Your task to perform on an android device: When is my next meeting? Image 0: 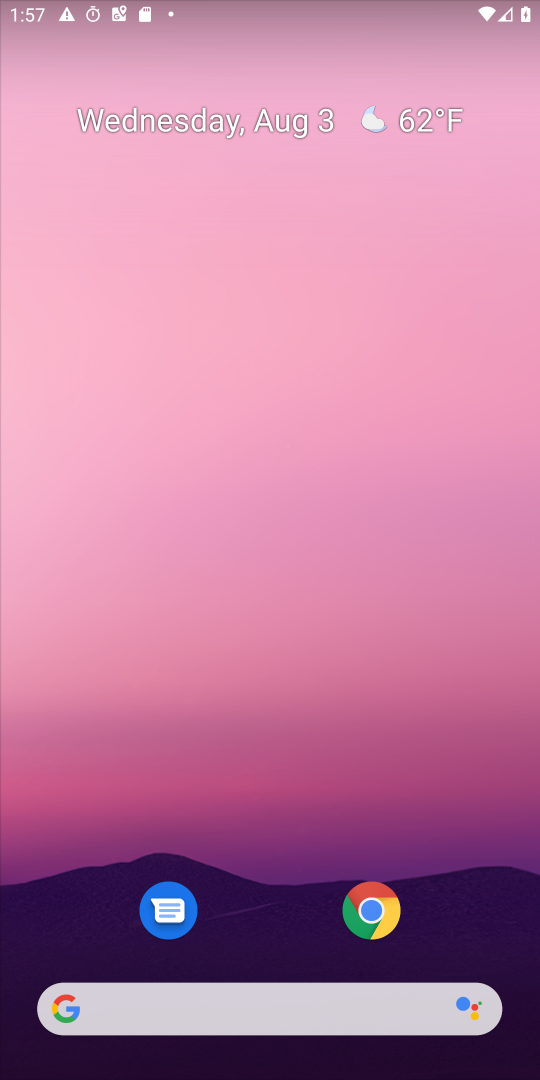
Step 0: drag from (365, 736) to (395, 0)
Your task to perform on an android device: When is my next meeting? Image 1: 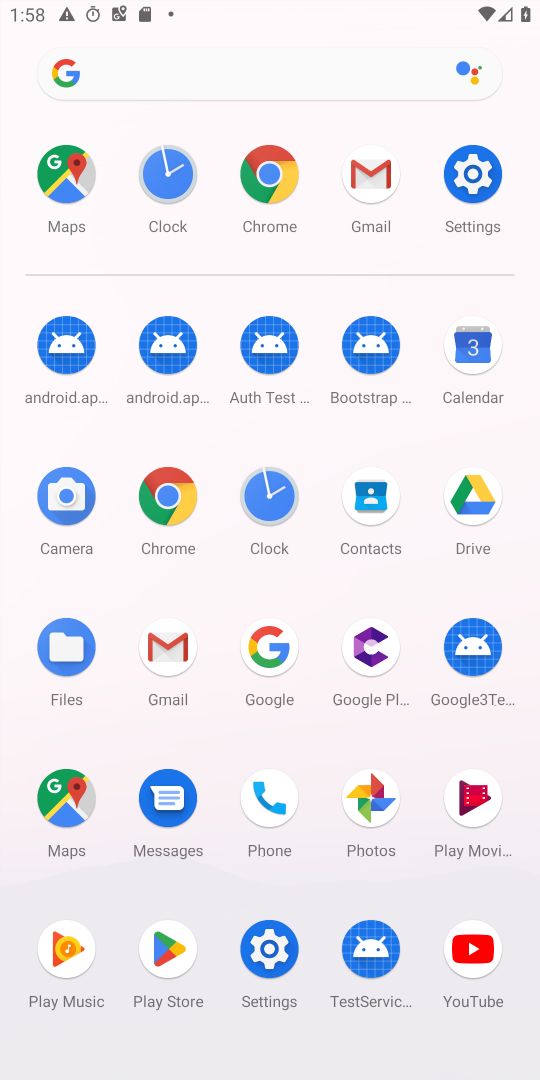
Step 1: click (485, 175)
Your task to perform on an android device: When is my next meeting? Image 2: 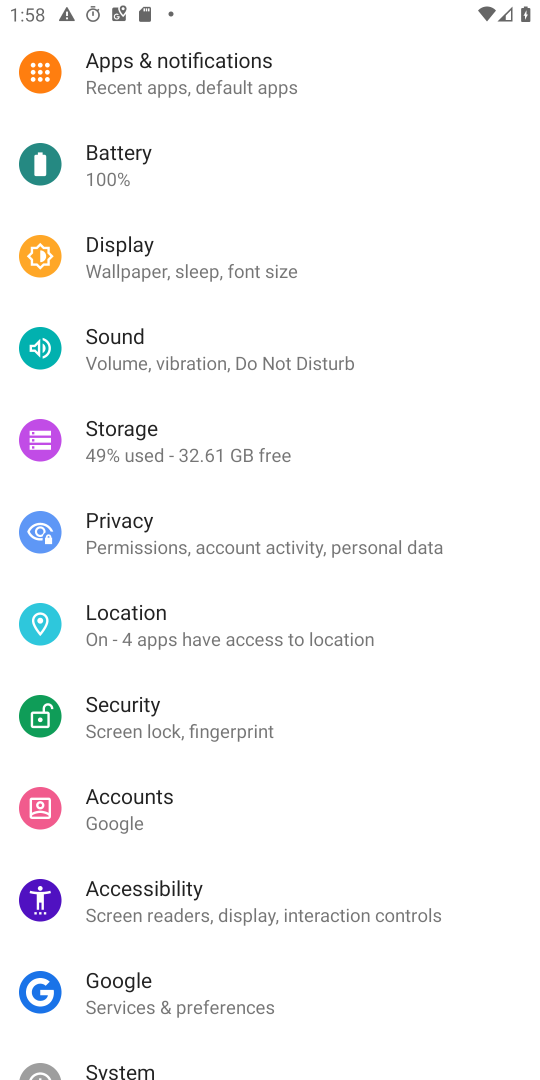
Step 2: press home button
Your task to perform on an android device: When is my next meeting? Image 3: 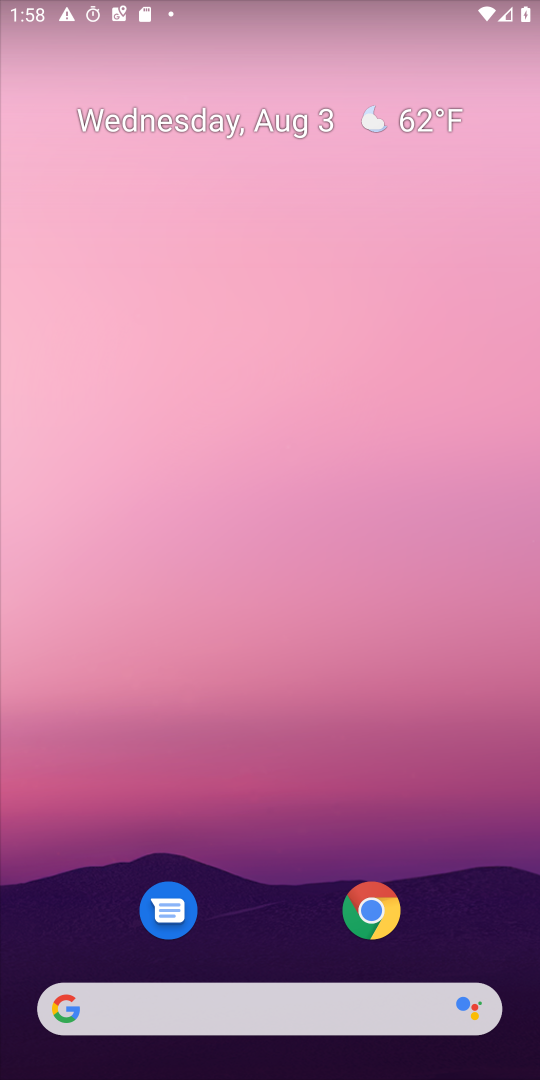
Step 3: drag from (321, 993) to (306, 11)
Your task to perform on an android device: When is my next meeting? Image 4: 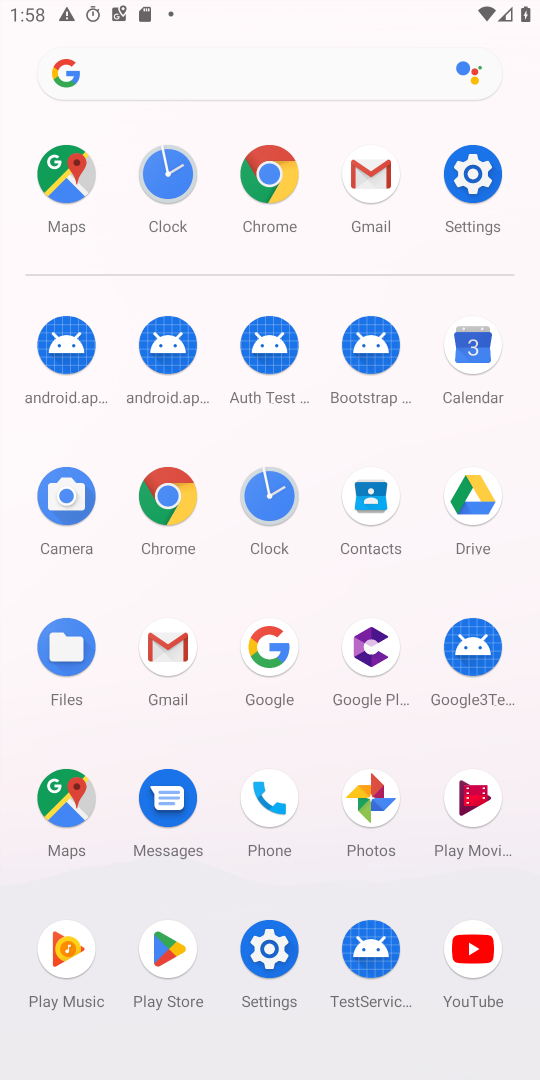
Step 4: click (441, 339)
Your task to perform on an android device: When is my next meeting? Image 5: 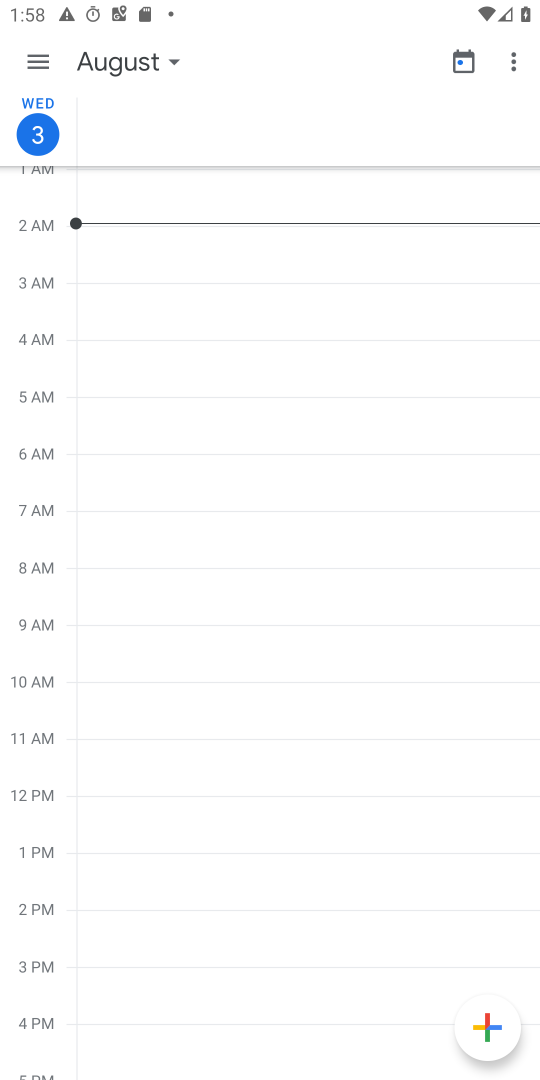
Step 5: click (172, 58)
Your task to perform on an android device: When is my next meeting? Image 6: 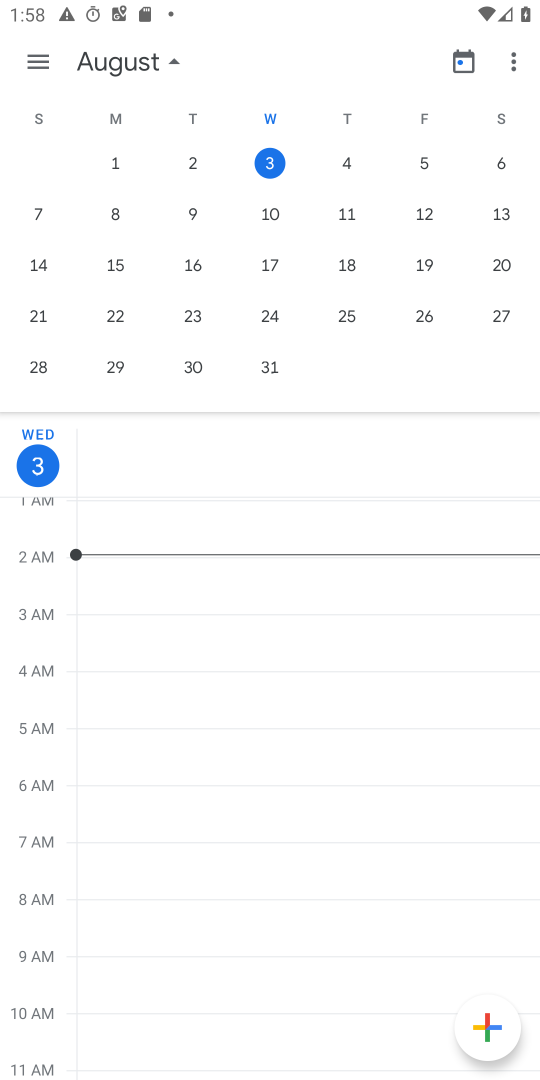
Step 6: click (275, 160)
Your task to perform on an android device: When is my next meeting? Image 7: 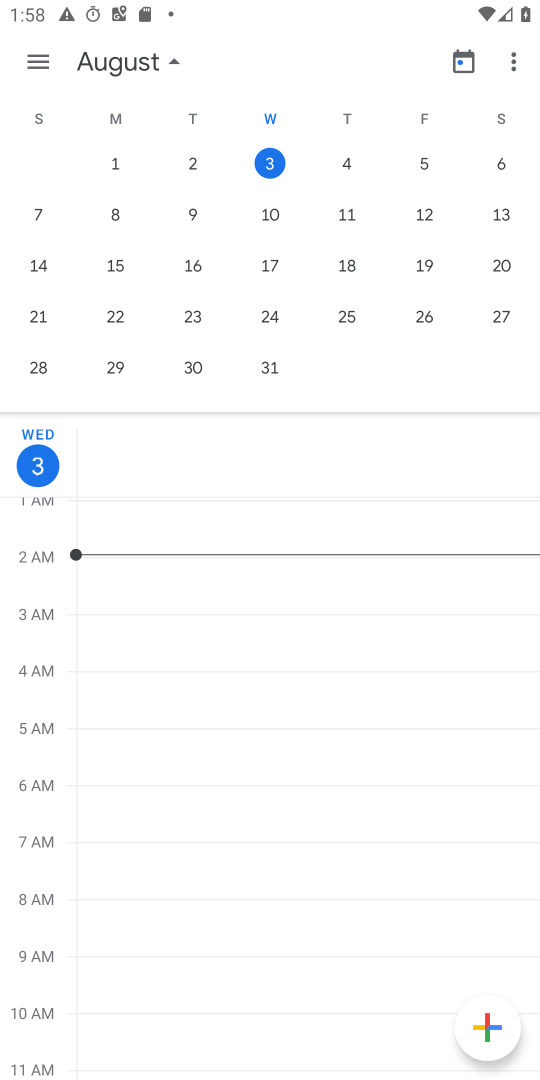
Step 7: click (275, 160)
Your task to perform on an android device: When is my next meeting? Image 8: 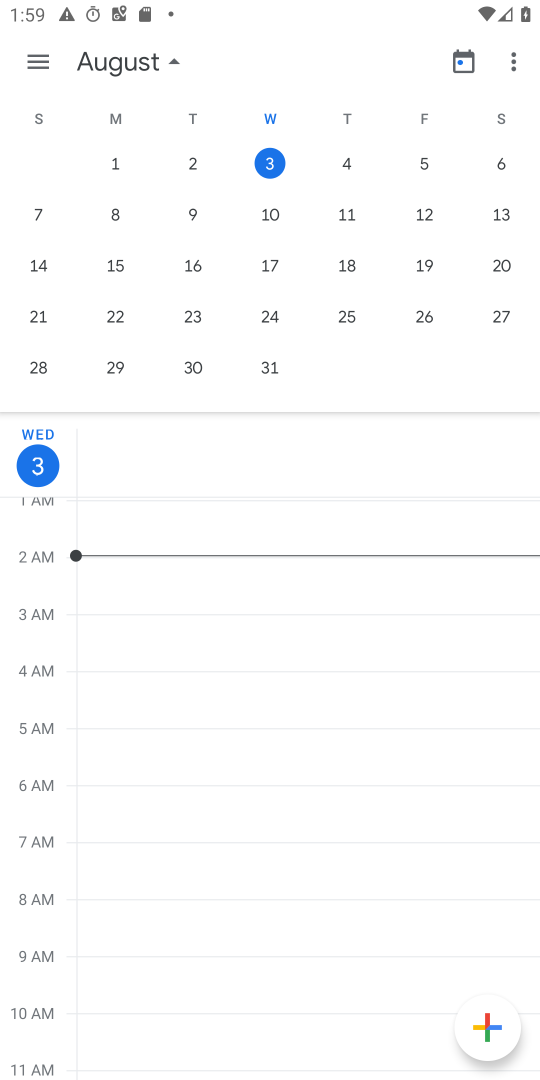
Step 8: task complete